Your task to perform on an android device: allow cookies in the chrome app Image 0: 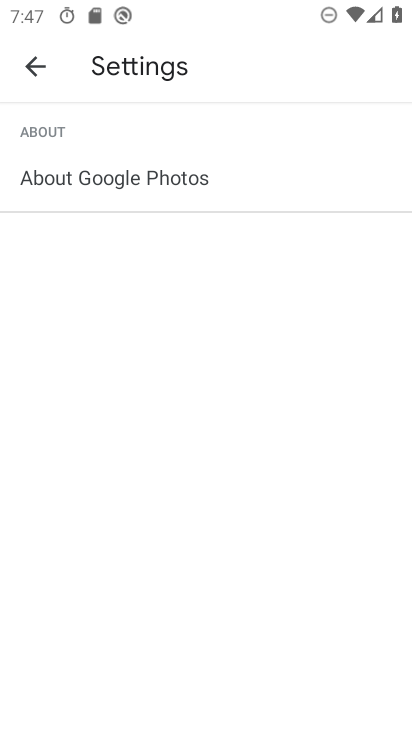
Step 0: press home button
Your task to perform on an android device: allow cookies in the chrome app Image 1: 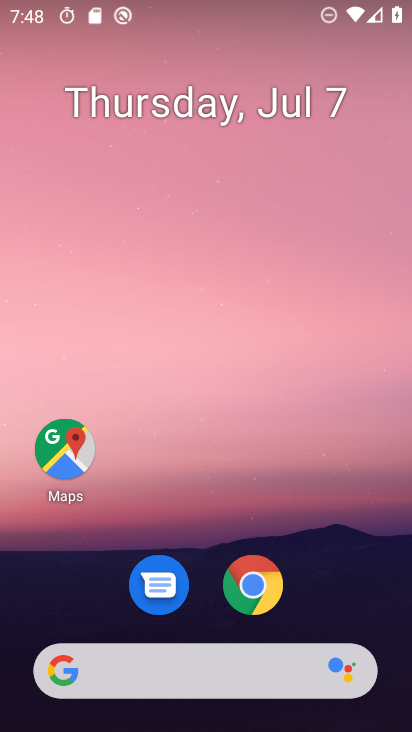
Step 1: click (258, 595)
Your task to perform on an android device: allow cookies in the chrome app Image 2: 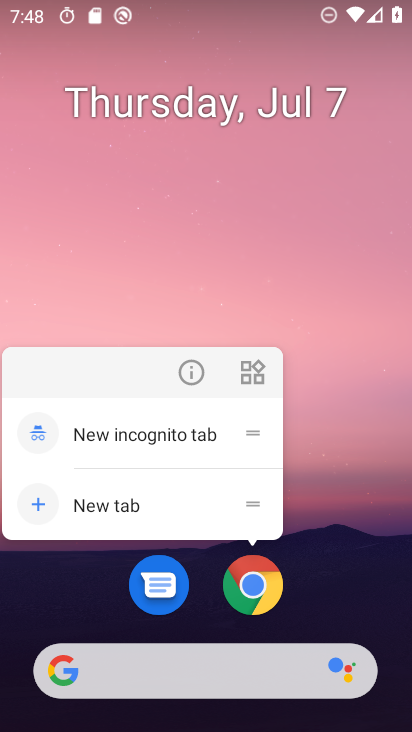
Step 2: click (254, 587)
Your task to perform on an android device: allow cookies in the chrome app Image 3: 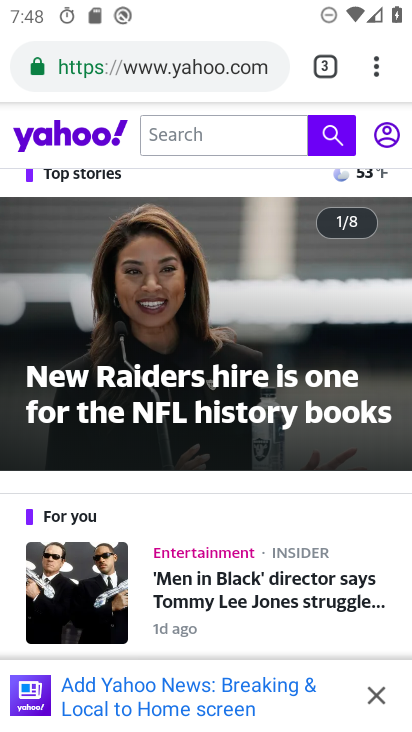
Step 3: drag from (375, 59) to (196, 583)
Your task to perform on an android device: allow cookies in the chrome app Image 4: 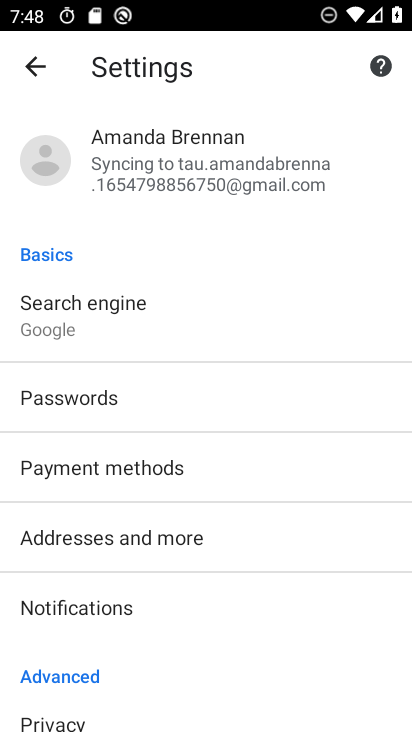
Step 4: drag from (150, 635) to (306, 153)
Your task to perform on an android device: allow cookies in the chrome app Image 5: 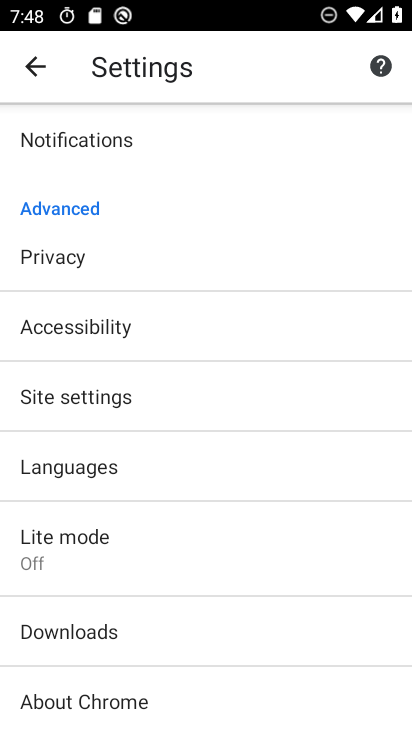
Step 5: click (117, 399)
Your task to perform on an android device: allow cookies in the chrome app Image 6: 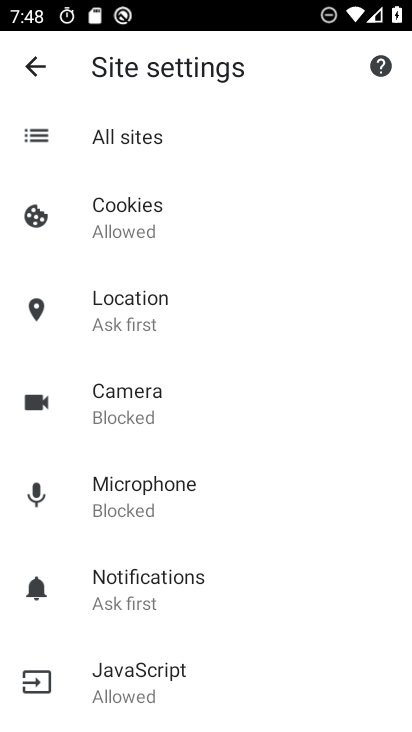
Step 6: click (136, 213)
Your task to perform on an android device: allow cookies in the chrome app Image 7: 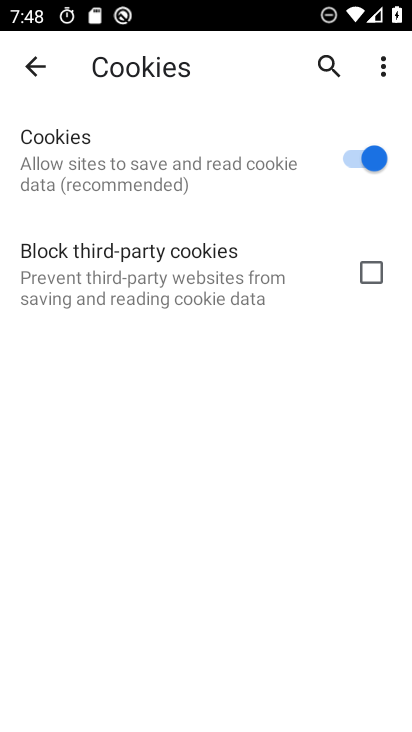
Step 7: task complete